Your task to perform on an android device: clear history in the chrome app Image 0: 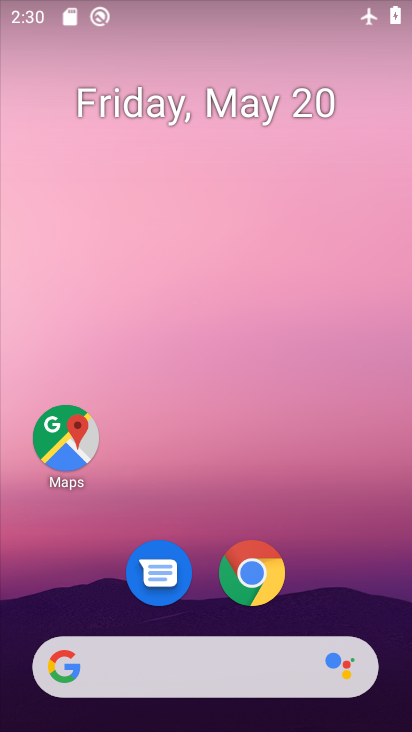
Step 0: click (237, 570)
Your task to perform on an android device: clear history in the chrome app Image 1: 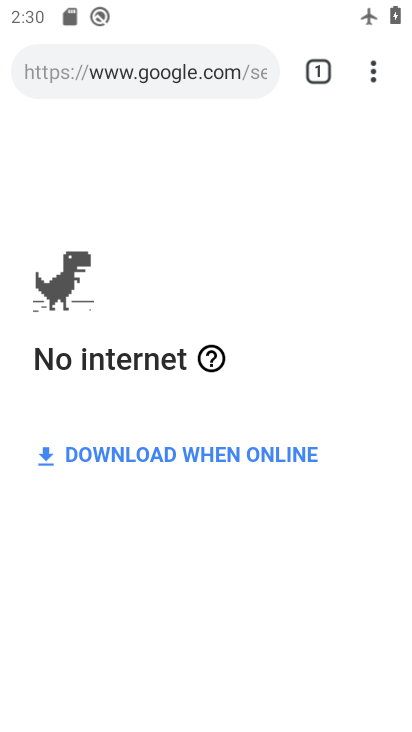
Step 1: click (375, 73)
Your task to perform on an android device: clear history in the chrome app Image 2: 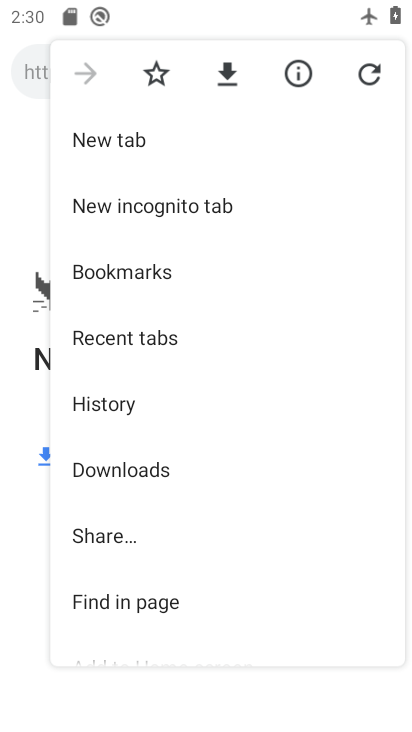
Step 2: click (131, 399)
Your task to perform on an android device: clear history in the chrome app Image 3: 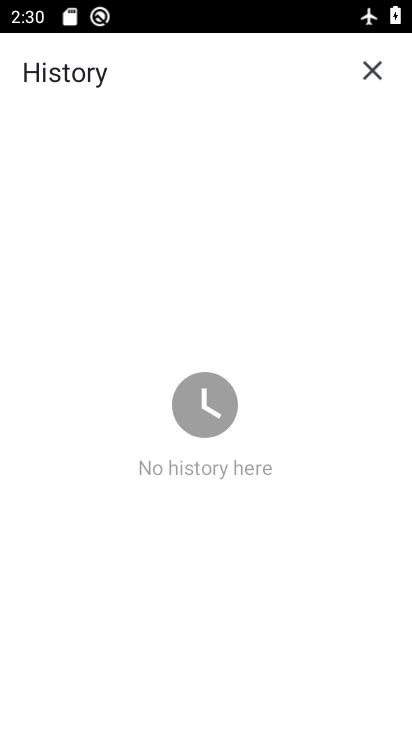
Step 3: task complete